Your task to perform on an android device: turn off translation in the chrome app Image 0: 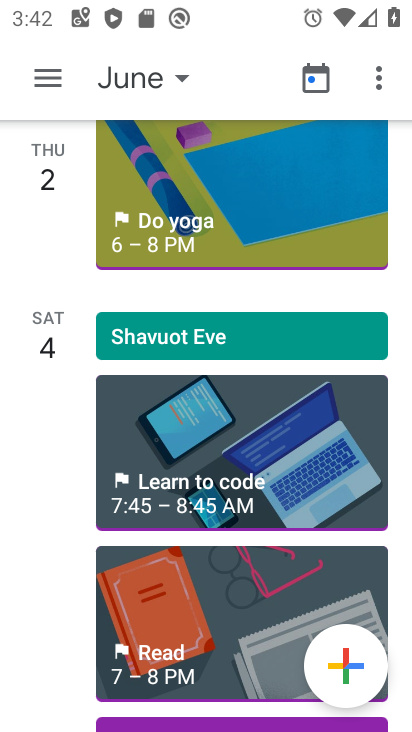
Step 0: press home button
Your task to perform on an android device: turn off translation in the chrome app Image 1: 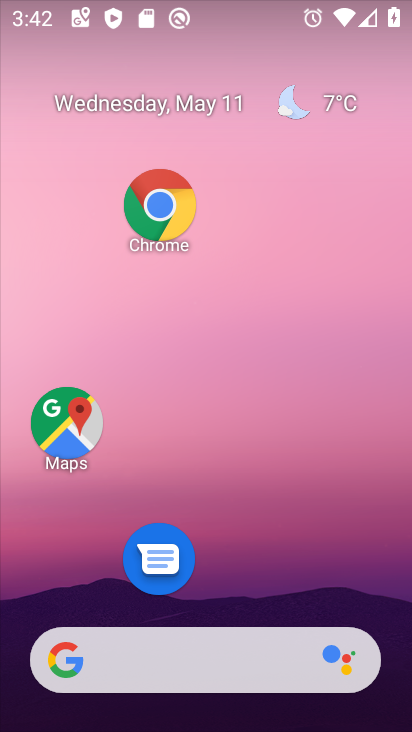
Step 1: click (151, 197)
Your task to perform on an android device: turn off translation in the chrome app Image 2: 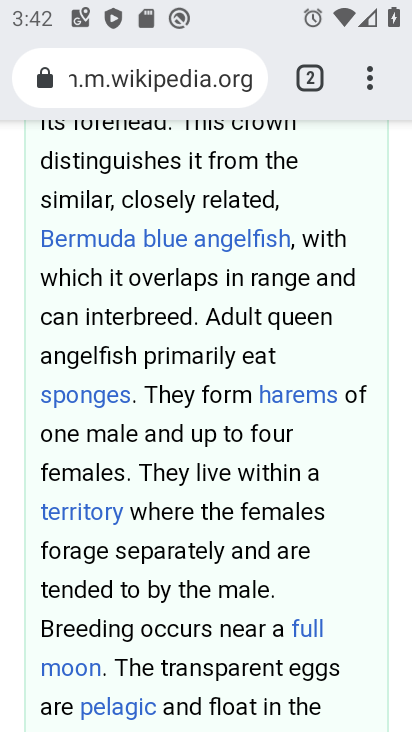
Step 2: click (375, 80)
Your task to perform on an android device: turn off translation in the chrome app Image 3: 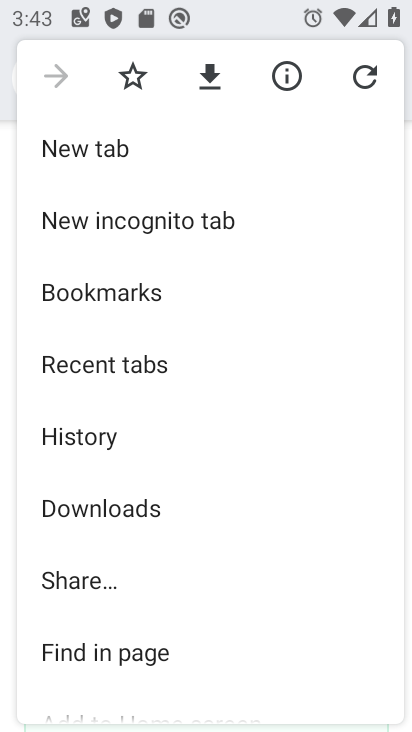
Step 3: drag from (146, 674) to (124, 345)
Your task to perform on an android device: turn off translation in the chrome app Image 4: 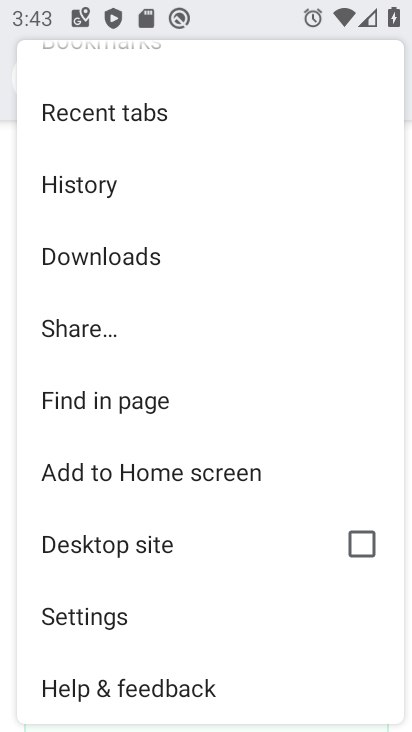
Step 4: click (87, 624)
Your task to perform on an android device: turn off translation in the chrome app Image 5: 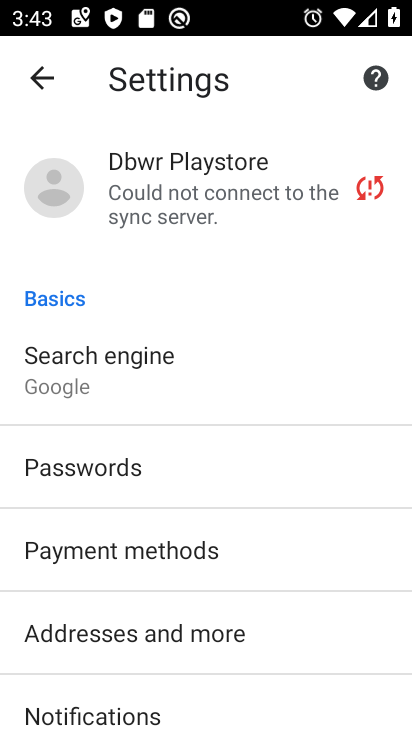
Step 5: drag from (123, 676) to (104, 243)
Your task to perform on an android device: turn off translation in the chrome app Image 6: 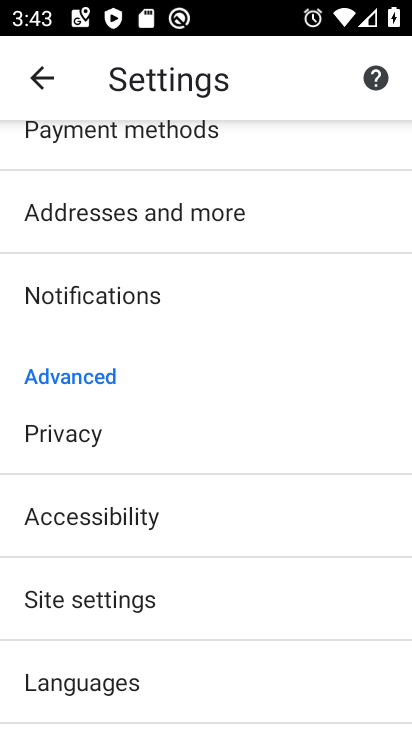
Step 6: click (80, 685)
Your task to perform on an android device: turn off translation in the chrome app Image 7: 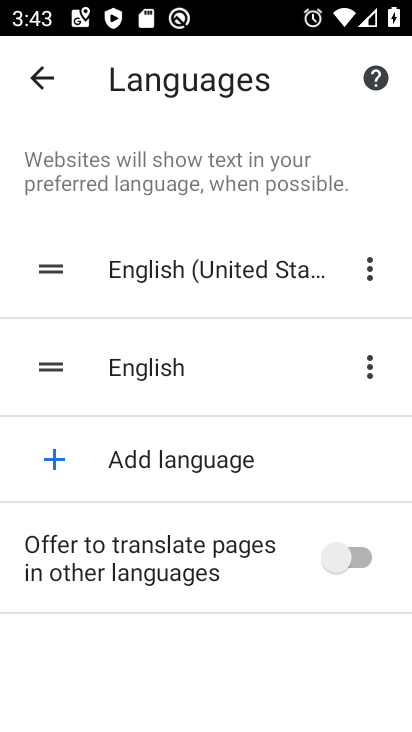
Step 7: task complete